Your task to perform on an android device: turn smart compose on in the gmail app Image 0: 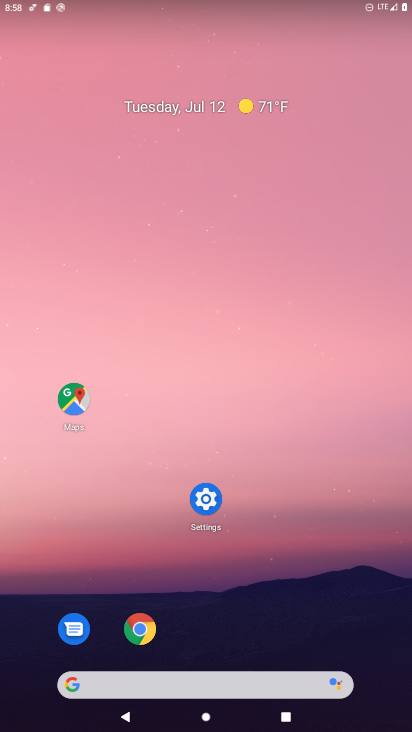
Step 0: drag from (385, 676) to (348, 175)
Your task to perform on an android device: turn smart compose on in the gmail app Image 1: 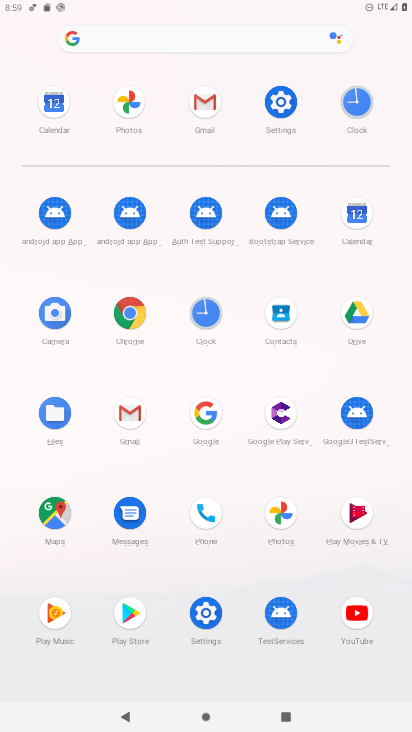
Step 1: click (133, 418)
Your task to perform on an android device: turn smart compose on in the gmail app Image 2: 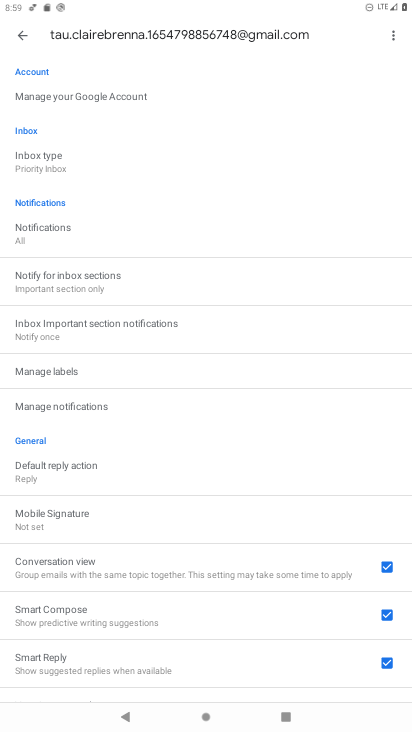
Step 2: task complete